Your task to perform on an android device: open a bookmark in the chrome app Image 0: 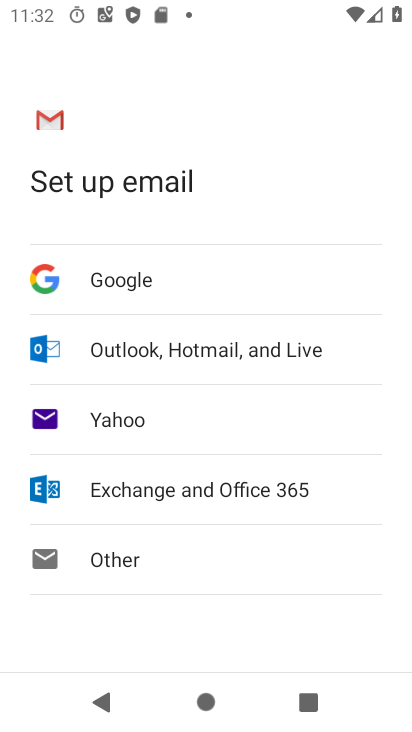
Step 0: press home button
Your task to perform on an android device: open a bookmark in the chrome app Image 1: 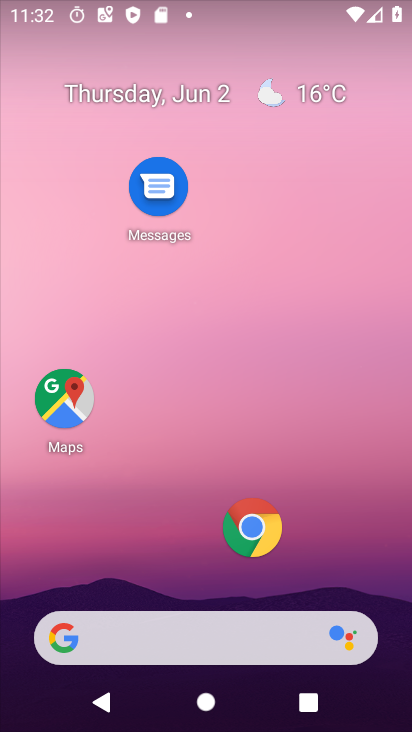
Step 1: click (250, 517)
Your task to perform on an android device: open a bookmark in the chrome app Image 2: 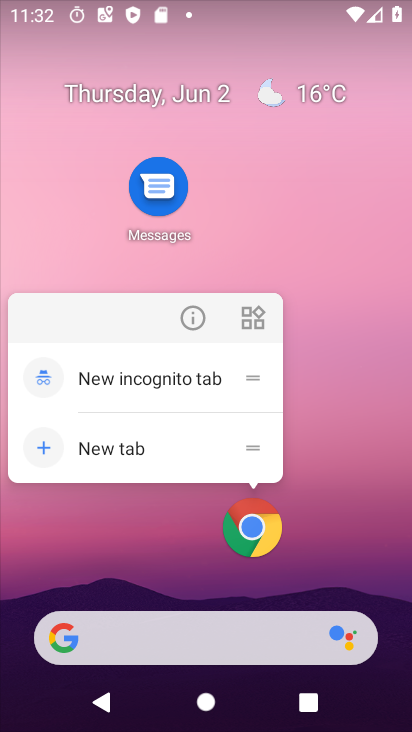
Step 2: click (250, 517)
Your task to perform on an android device: open a bookmark in the chrome app Image 3: 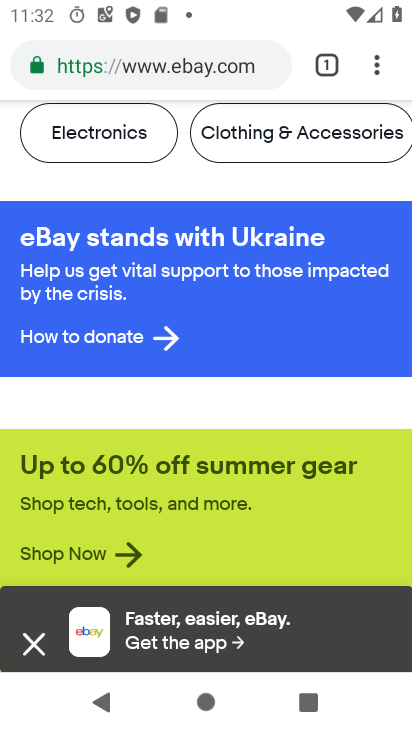
Step 3: click (379, 54)
Your task to perform on an android device: open a bookmark in the chrome app Image 4: 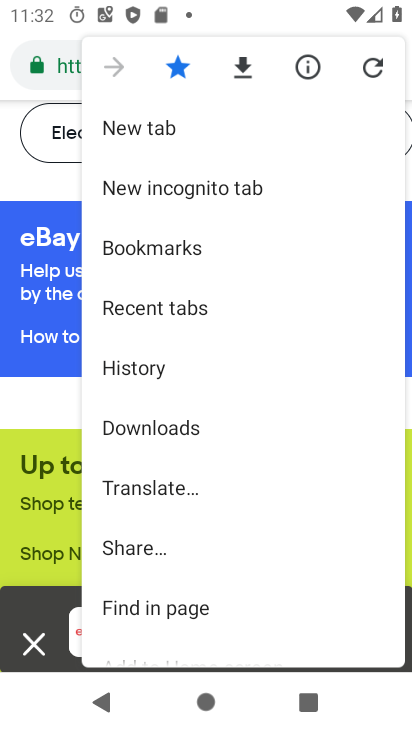
Step 4: click (223, 242)
Your task to perform on an android device: open a bookmark in the chrome app Image 5: 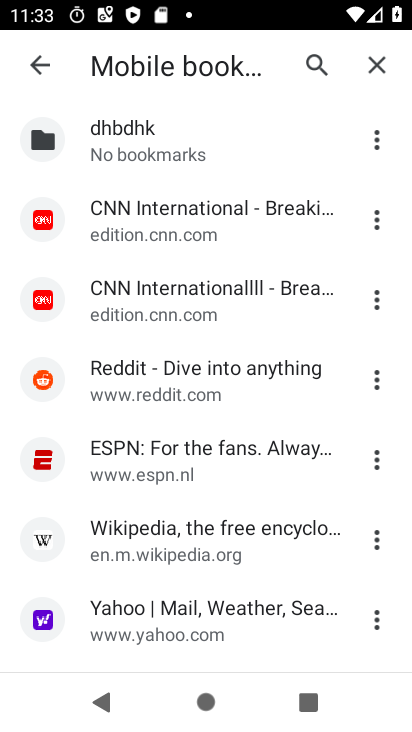
Step 5: drag from (172, 574) to (231, 101)
Your task to perform on an android device: open a bookmark in the chrome app Image 6: 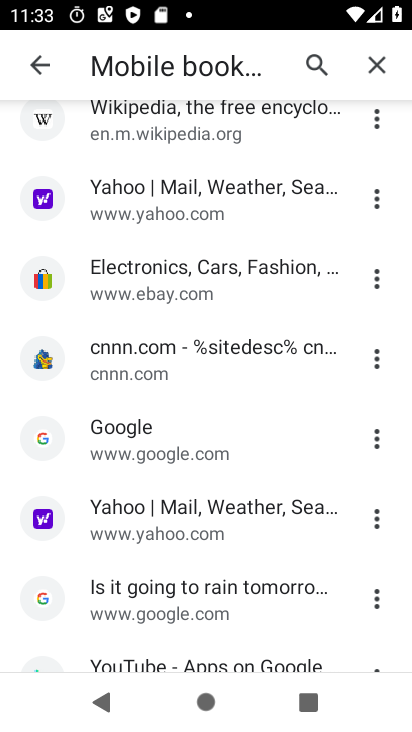
Step 6: click (220, 598)
Your task to perform on an android device: open a bookmark in the chrome app Image 7: 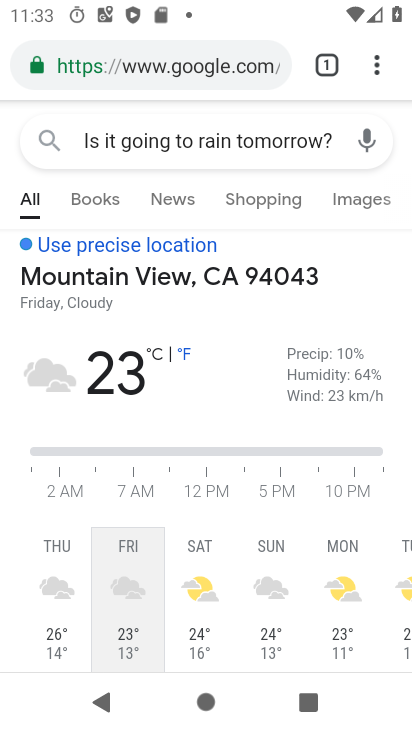
Step 7: task complete